Your task to perform on an android device: Show me recent news Image 0: 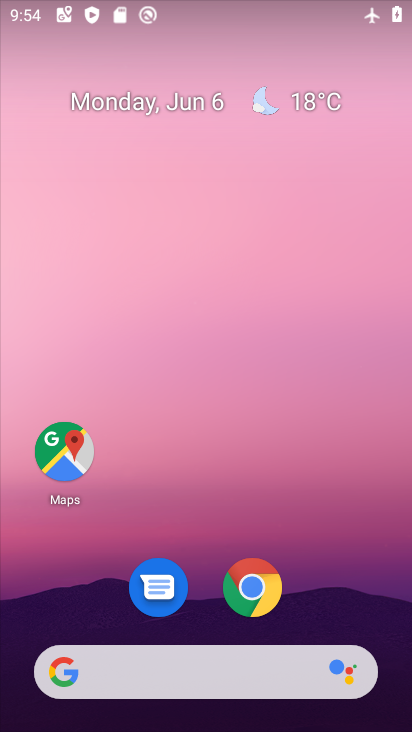
Step 0: drag from (309, 555) to (321, 124)
Your task to perform on an android device: Show me recent news Image 1: 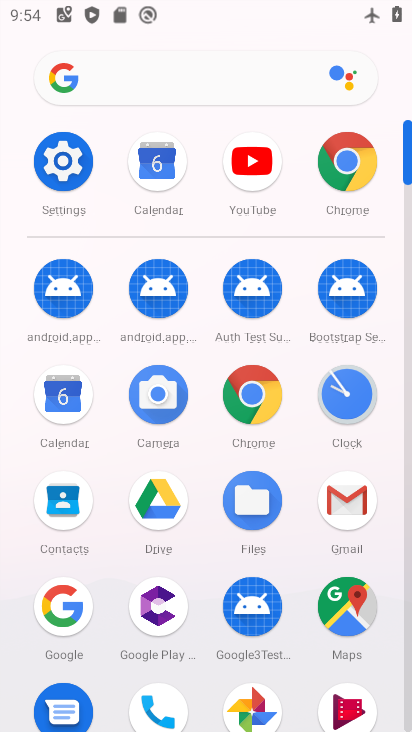
Step 1: click (255, 398)
Your task to perform on an android device: Show me recent news Image 2: 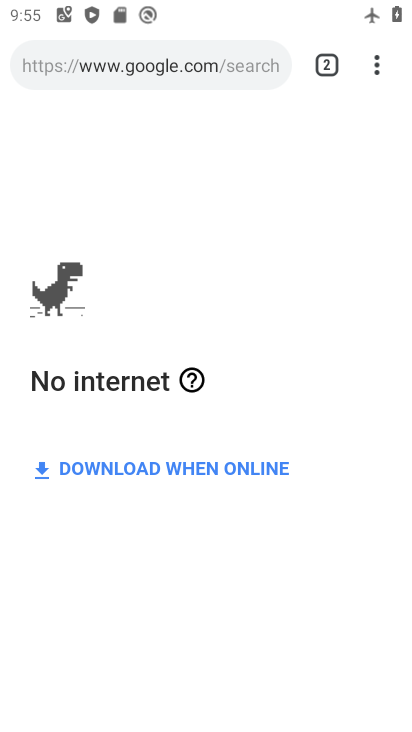
Step 2: task complete